Your task to perform on an android device: Show me the alarms in the clock app Image 0: 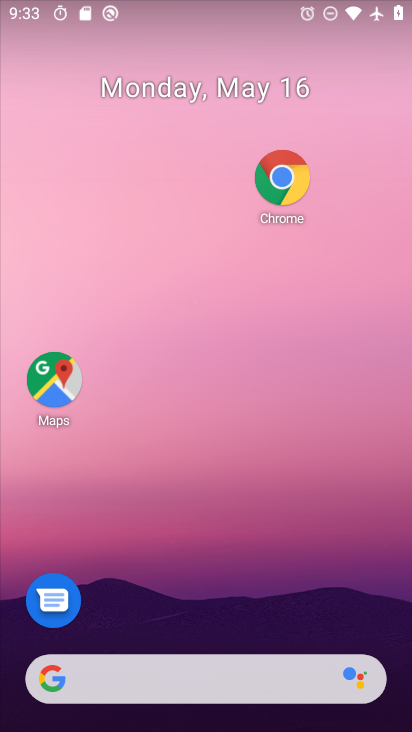
Step 0: drag from (165, 682) to (328, 227)
Your task to perform on an android device: Show me the alarms in the clock app Image 1: 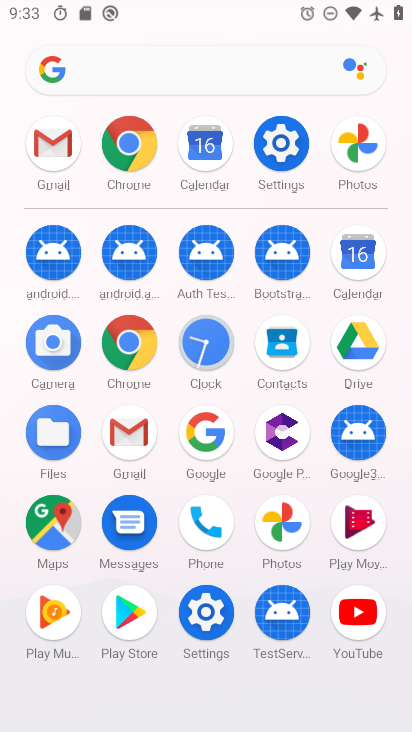
Step 1: click (210, 347)
Your task to perform on an android device: Show me the alarms in the clock app Image 2: 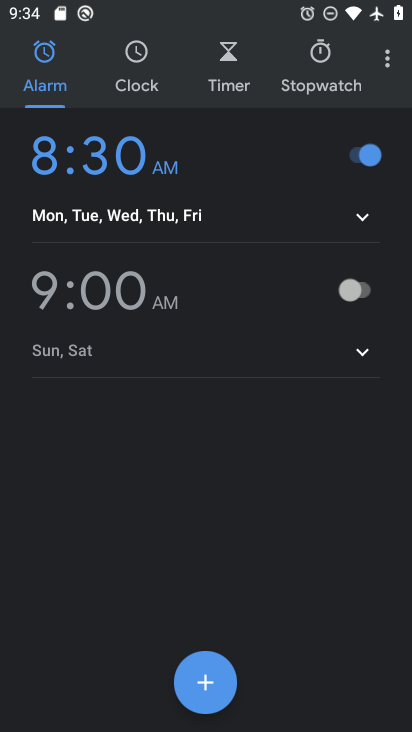
Step 2: task complete